Your task to perform on an android device: set the timer Image 0: 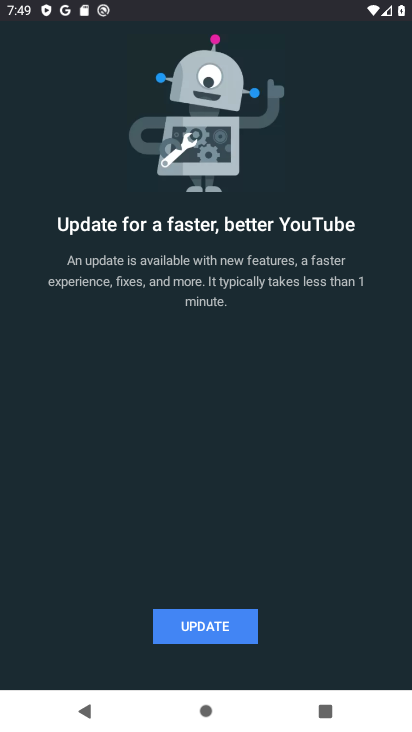
Step 0: press back button
Your task to perform on an android device: set the timer Image 1: 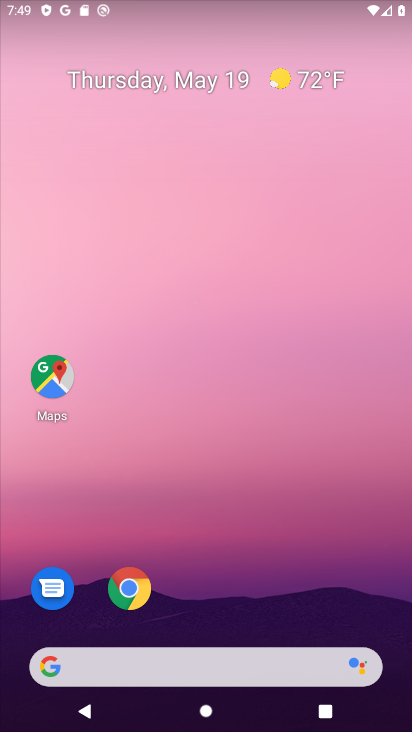
Step 1: drag from (347, 609) to (317, 3)
Your task to perform on an android device: set the timer Image 2: 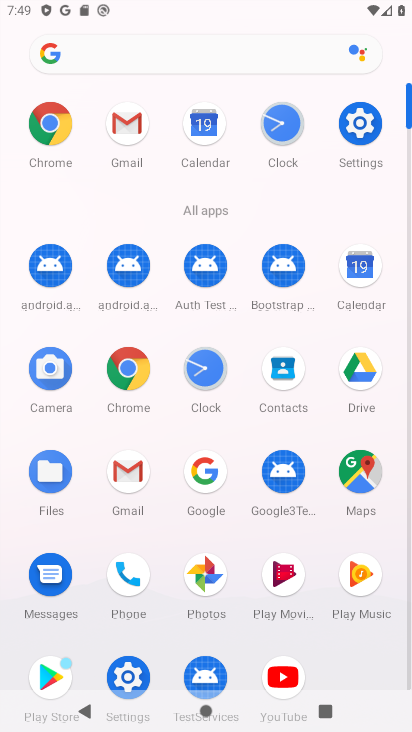
Step 2: click (210, 386)
Your task to perform on an android device: set the timer Image 3: 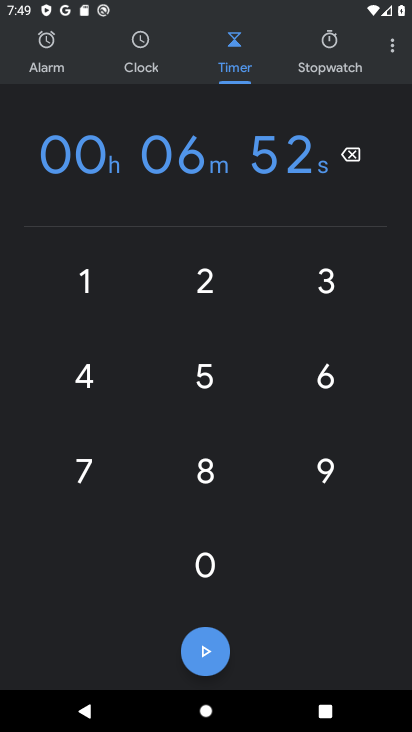
Step 3: task complete